Your task to perform on an android device: Do I have any events today? Image 0: 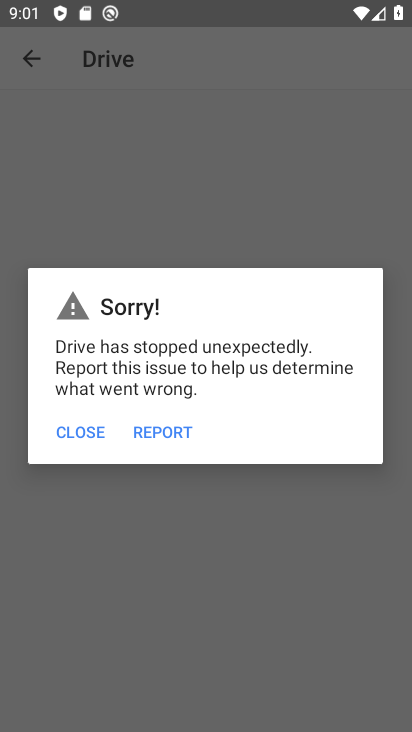
Step 0: press home button
Your task to perform on an android device: Do I have any events today? Image 1: 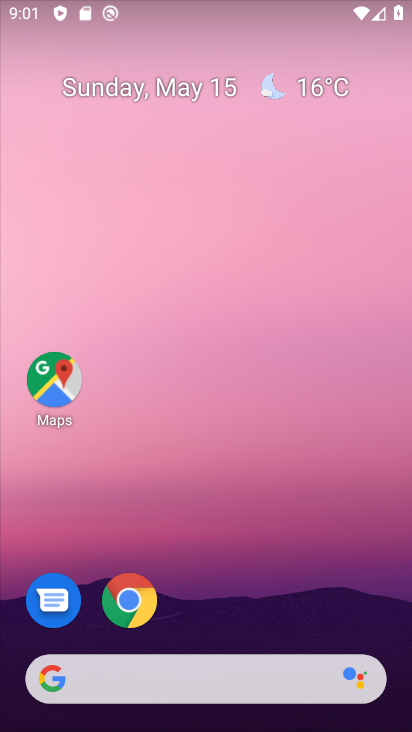
Step 1: drag from (303, 590) to (316, 167)
Your task to perform on an android device: Do I have any events today? Image 2: 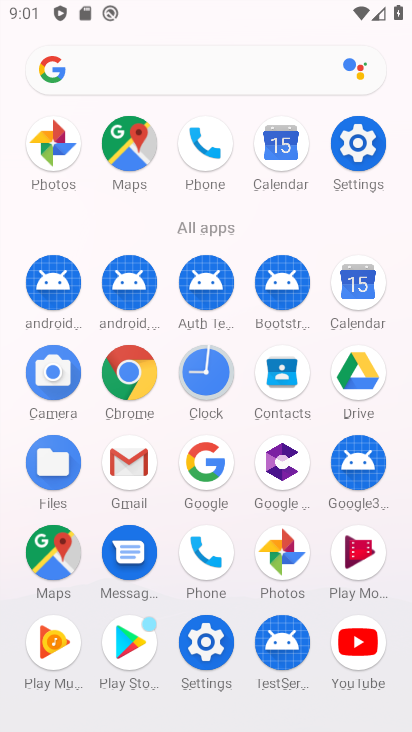
Step 2: click (365, 306)
Your task to perform on an android device: Do I have any events today? Image 3: 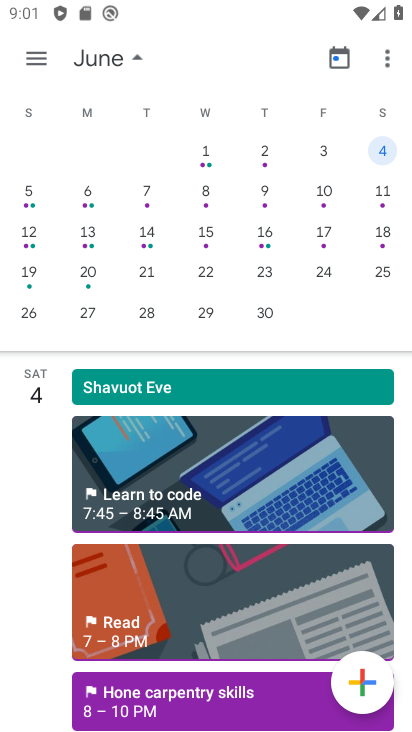
Step 3: drag from (33, 212) to (410, 327)
Your task to perform on an android device: Do I have any events today? Image 4: 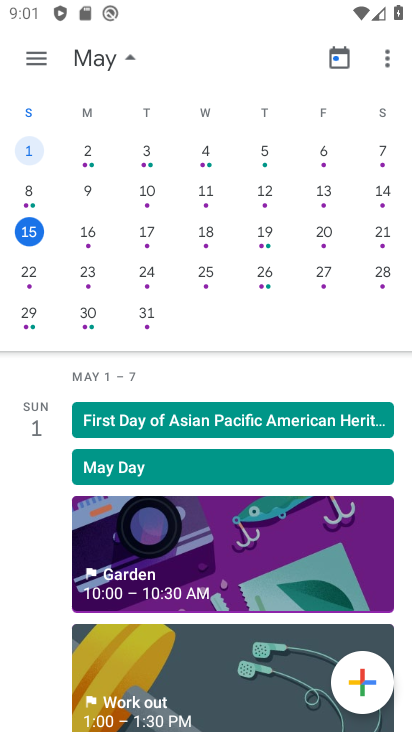
Step 4: click (87, 237)
Your task to perform on an android device: Do I have any events today? Image 5: 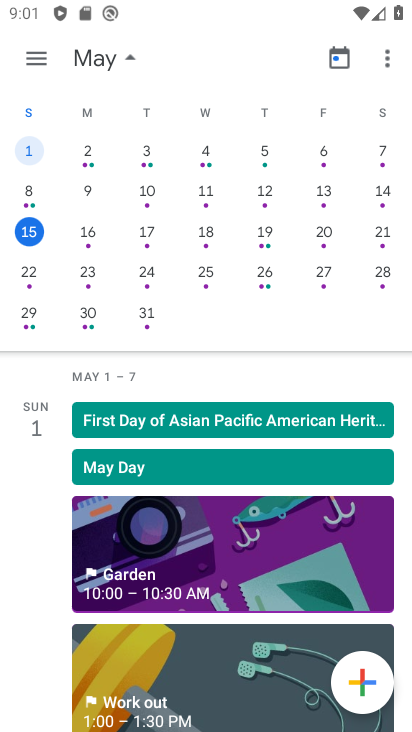
Step 5: click (21, 237)
Your task to perform on an android device: Do I have any events today? Image 6: 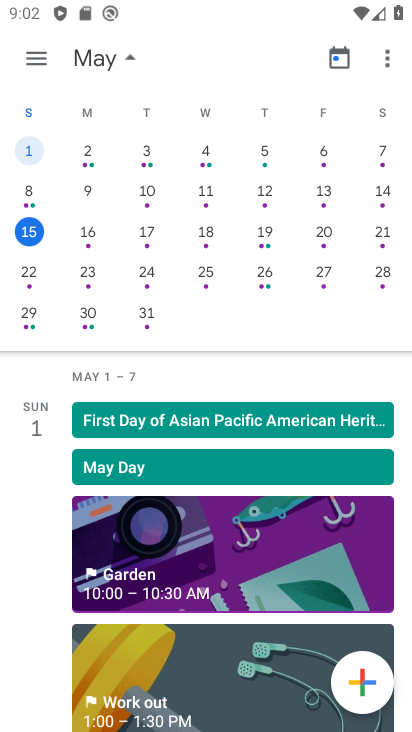
Step 6: drag from (225, 557) to (205, 353)
Your task to perform on an android device: Do I have any events today? Image 7: 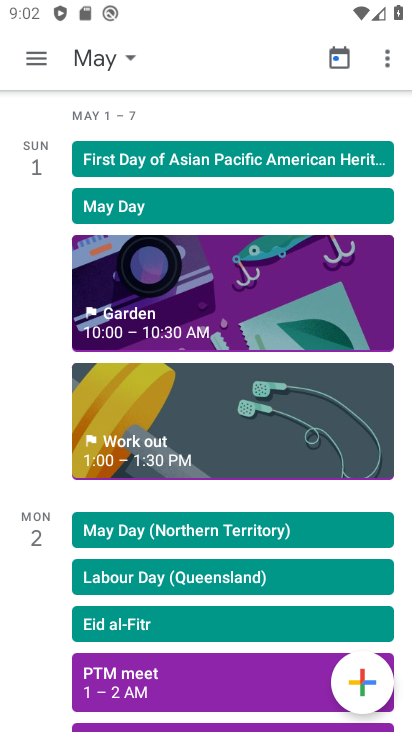
Step 7: drag from (227, 587) to (243, 724)
Your task to perform on an android device: Do I have any events today? Image 8: 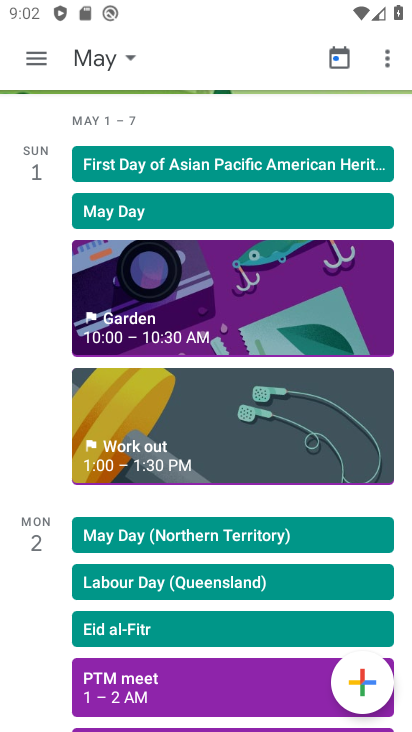
Step 8: drag from (186, 398) to (189, 684)
Your task to perform on an android device: Do I have any events today? Image 9: 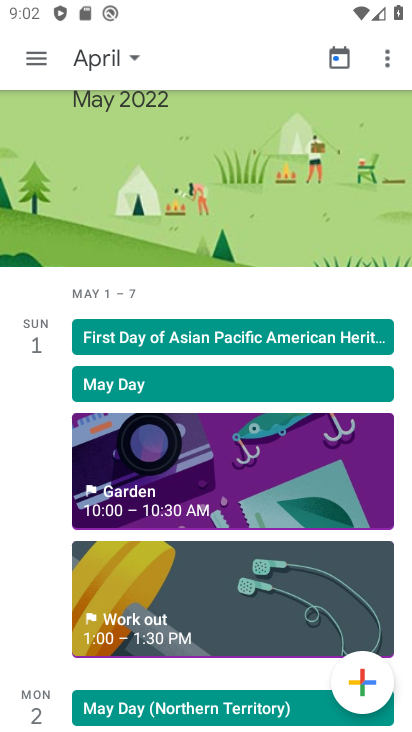
Step 9: drag from (94, 258) to (101, 658)
Your task to perform on an android device: Do I have any events today? Image 10: 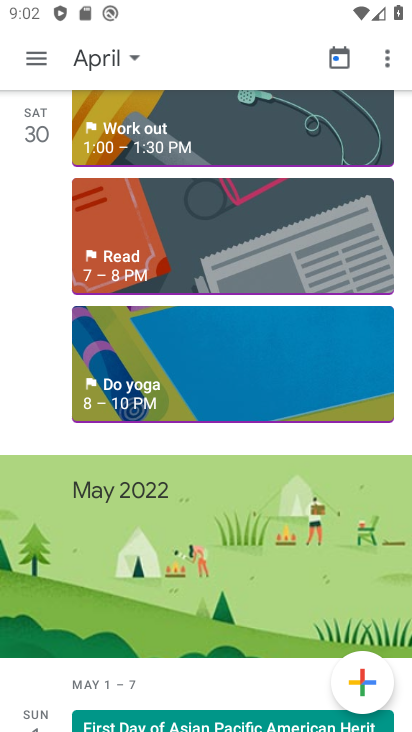
Step 10: click (122, 50)
Your task to perform on an android device: Do I have any events today? Image 11: 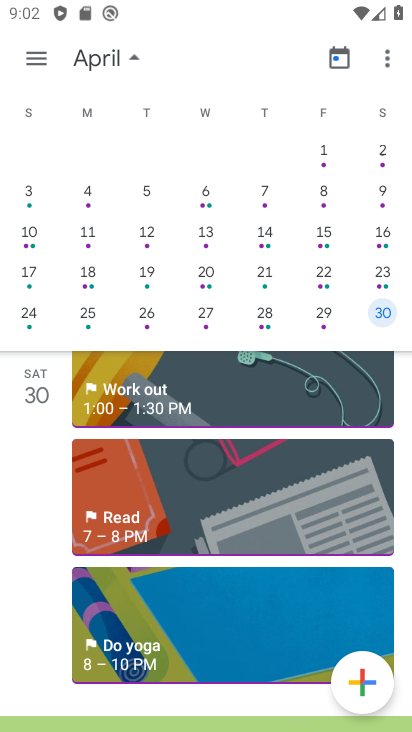
Step 11: drag from (386, 223) to (30, 226)
Your task to perform on an android device: Do I have any events today? Image 12: 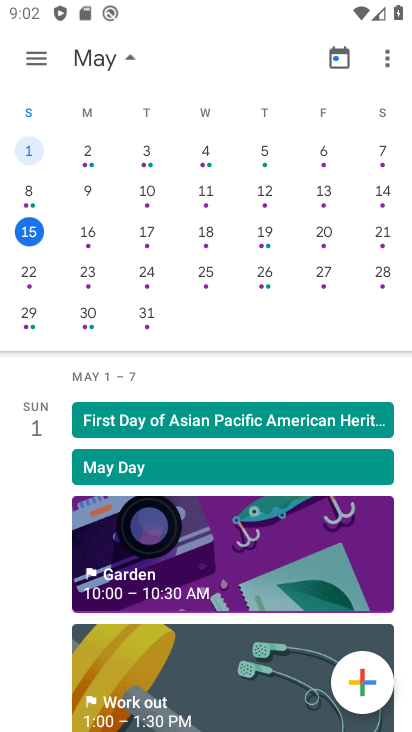
Step 12: click (30, 234)
Your task to perform on an android device: Do I have any events today? Image 13: 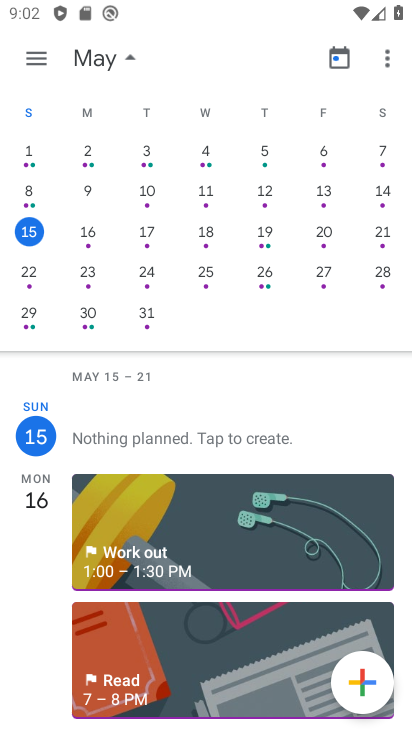
Step 13: task complete